Your task to perform on an android device: Open calendar and show me the first week of next month Image 0: 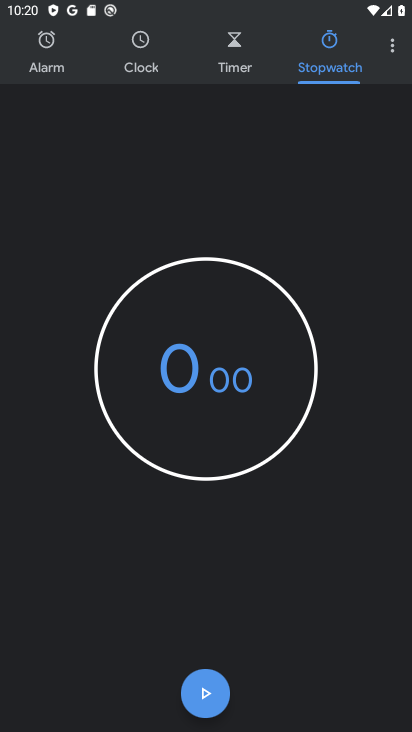
Step 0: press home button
Your task to perform on an android device: Open calendar and show me the first week of next month Image 1: 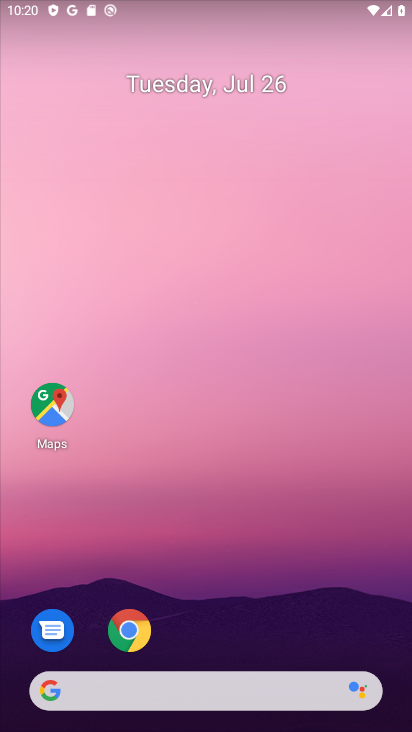
Step 1: drag from (206, 701) to (274, 165)
Your task to perform on an android device: Open calendar and show me the first week of next month Image 2: 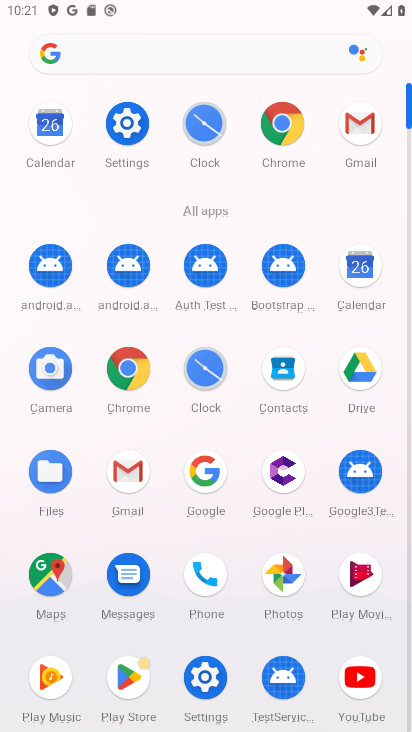
Step 2: click (347, 272)
Your task to perform on an android device: Open calendar and show me the first week of next month Image 3: 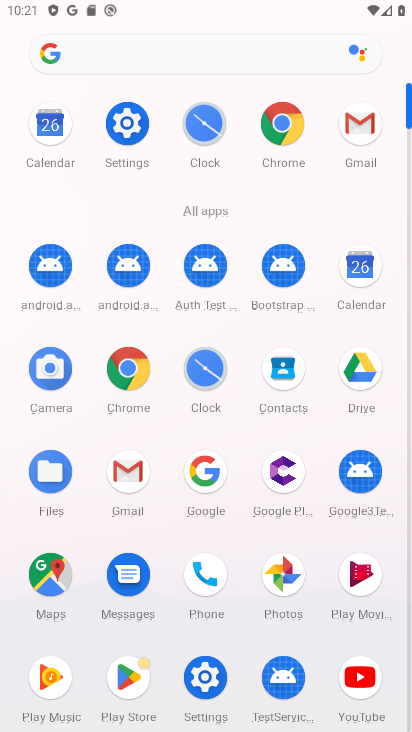
Step 3: click (347, 272)
Your task to perform on an android device: Open calendar and show me the first week of next month Image 4: 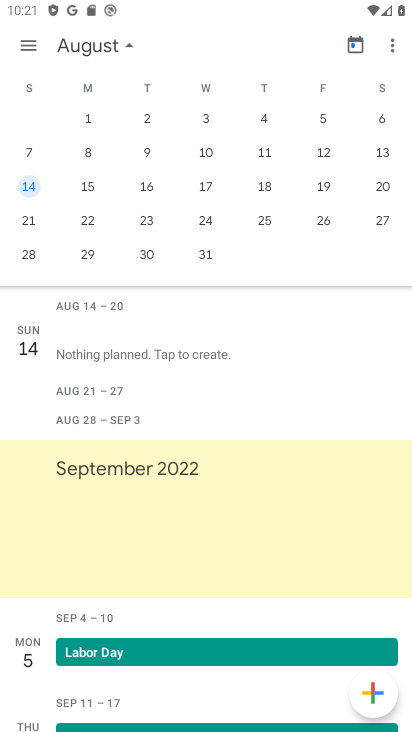
Step 4: click (85, 120)
Your task to perform on an android device: Open calendar and show me the first week of next month Image 5: 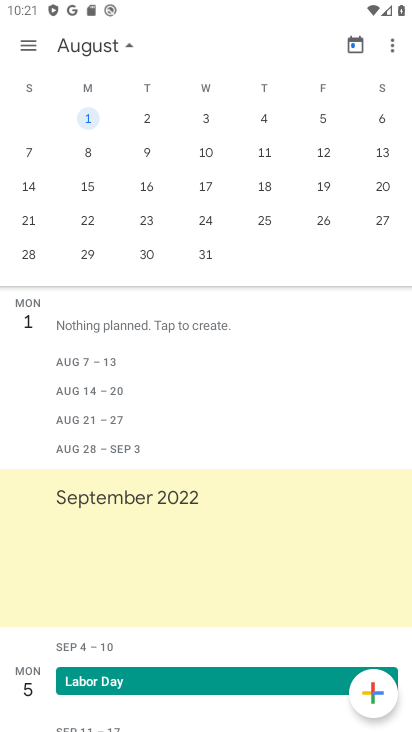
Step 5: task complete